Your task to perform on an android device: open app "DoorDash - Dasher" (install if not already installed) Image 0: 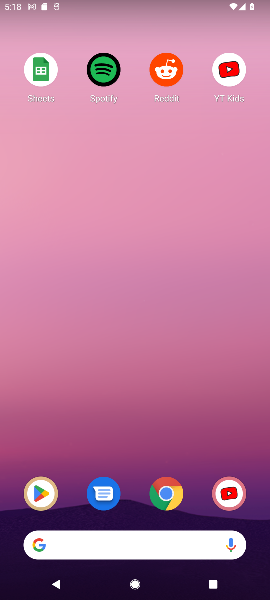
Step 0: click (35, 496)
Your task to perform on an android device: open app "DoorDash - Dasher" (install if not already installed) Image 1: 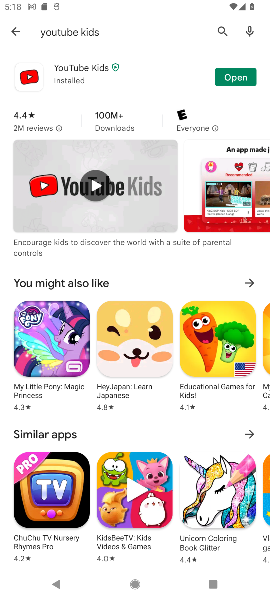
Step 1: click (223, 31)
Your task to perform on an android device: open app "DoorDash - Dasher" (install if not already installed) Image 2: 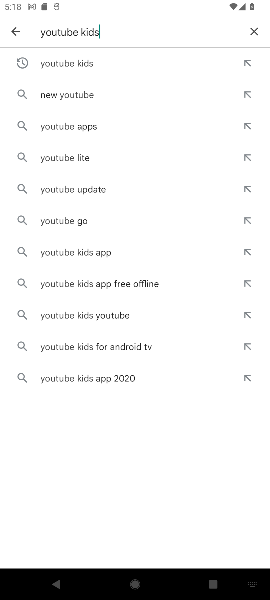
Step 2: click (223, 31)
Your task to perform on an android device: open app "DoorDash - Dasher" (install if not already installed) Image 3: 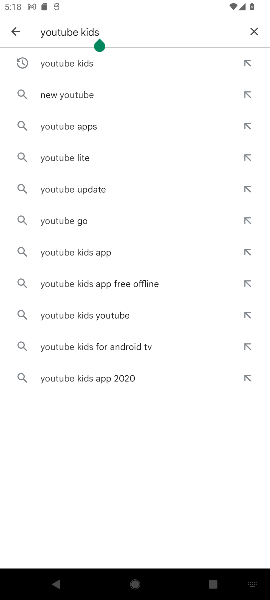
Step 3: click (258, 31)
Your task to perform on an android device: open app "DoorDash - Dasher" (install if not already installed) Image 4: 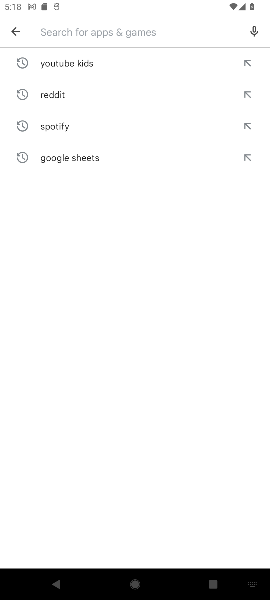
Step 4: type "DoorDash - Dasher"
Your task to perform on an android device: open app "DoorDash - Dasher" (install if not already installed) Image 5: 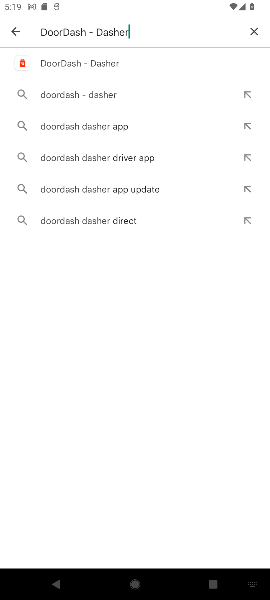
Step 5: click (62, 63)
Your task to perform on an android device: open app "DoorDash - Dasher" (install if not already installed) Image 6: 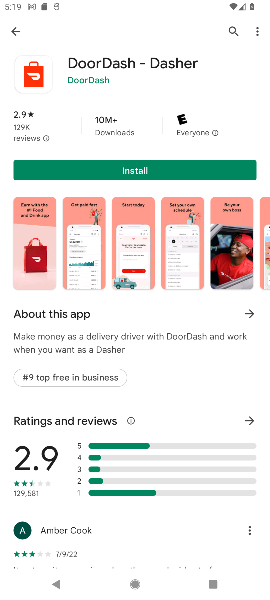
Step 6: click (138, 172)
Your task to perform on an android device: open app "DoorDash - Dasher" (install if not already installed) Image 7: 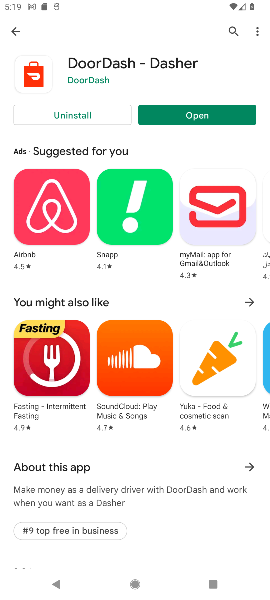
Step 7: task complete